Your task to perform on an android device: turn notification dots off Image 0: 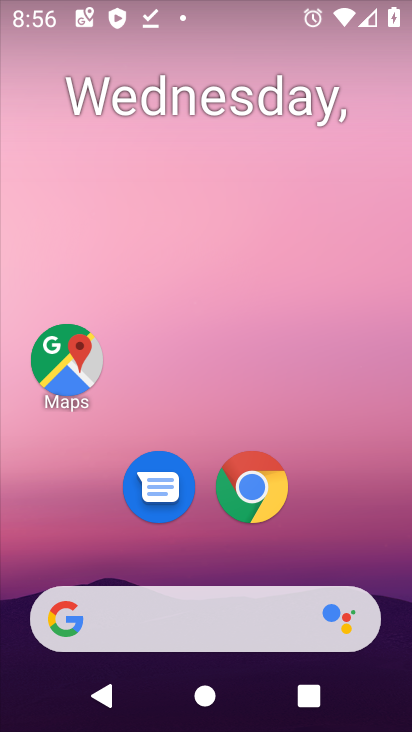
Step 0: drag from (237, 693) to (199, 481)
Your task to perform on an android device: turn notification dots off Image 1: 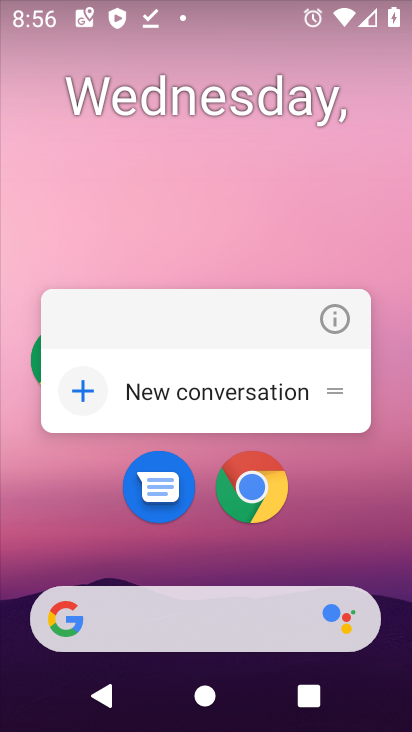
Step 1: drag from (248, 662) to (194, 107)
Your task to perform on an android device: turn notification dots off Image 2: 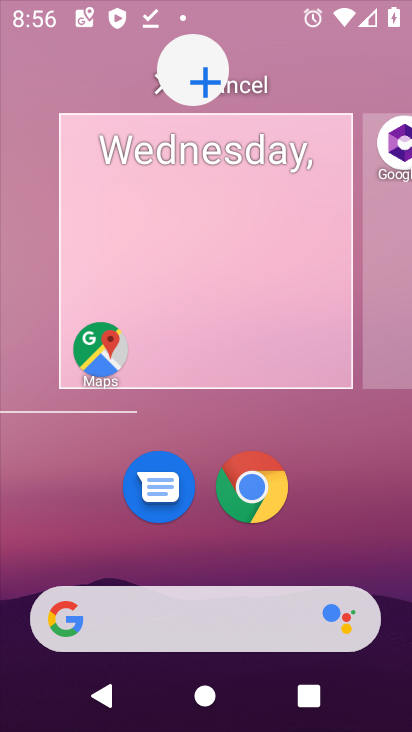
Step 2: drag from (238, 684) to (285, 8)
Your task to perform on an android device: turn notification dots off Image 3: 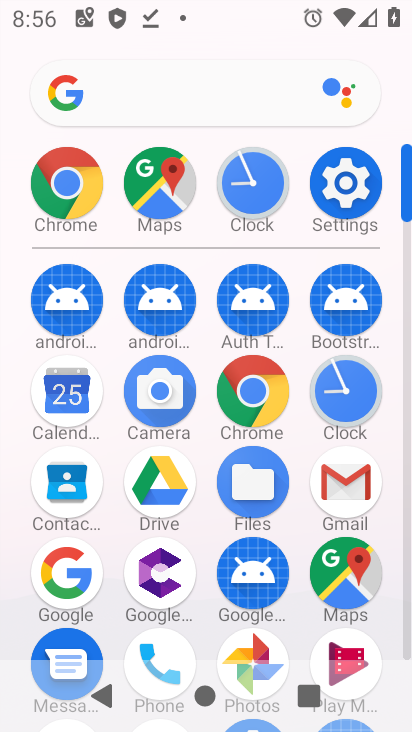
Step 3: drag from (241, 676) to (83, 118)
Your task to perform on an android device: turn notification dots off Image 4: 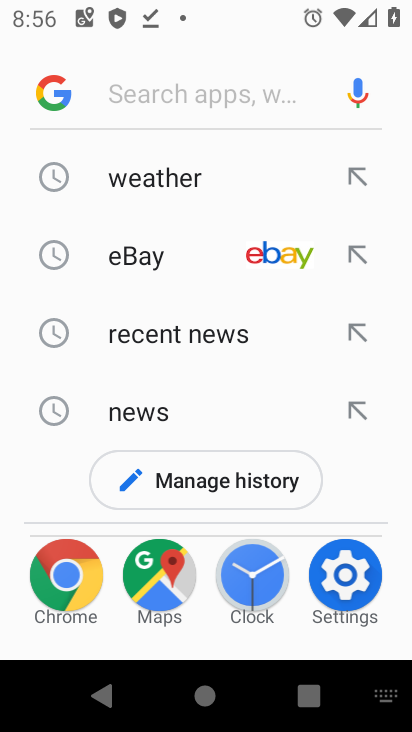
Step 4: click (327, 574)
Your task to perform on an android device: turn notification dots off Image 5: 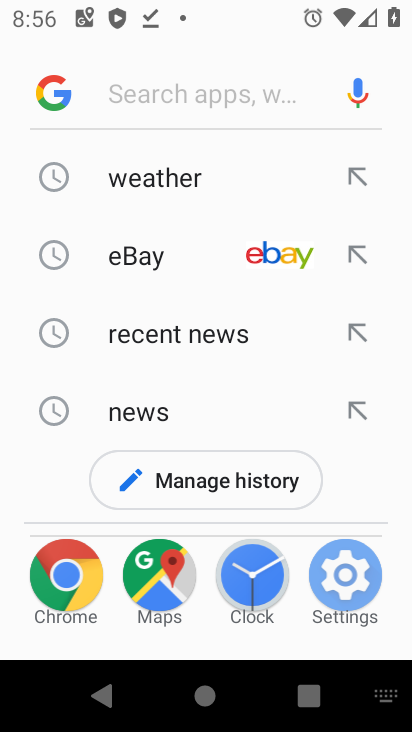
Step 5: click (328, 574)
Your task to perform on an android device: turn notification dots off Image 6: 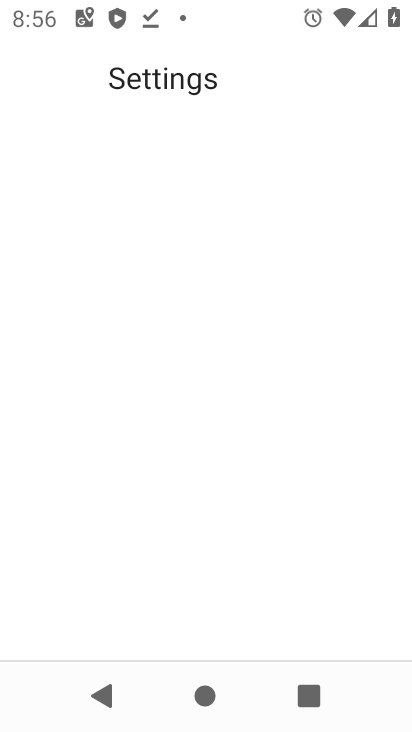
Step 6: click (328, 574)
Your task to perform on an android device: turn notification dots off Image 7: 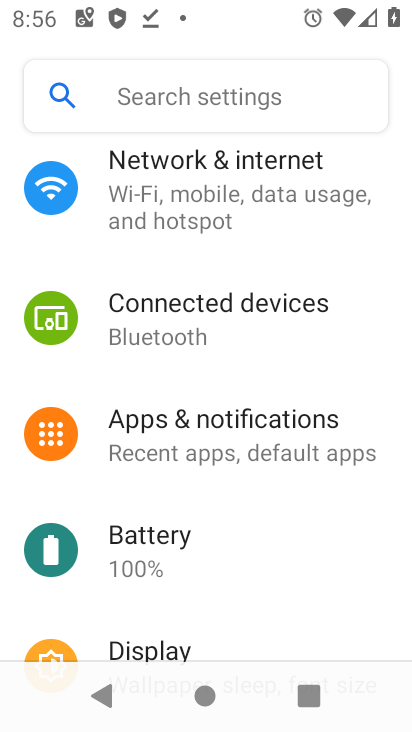
Step 7: drag from (202, 488) to (120, 154)
Your task to perform on an android device: turn notification dots off Image 8: 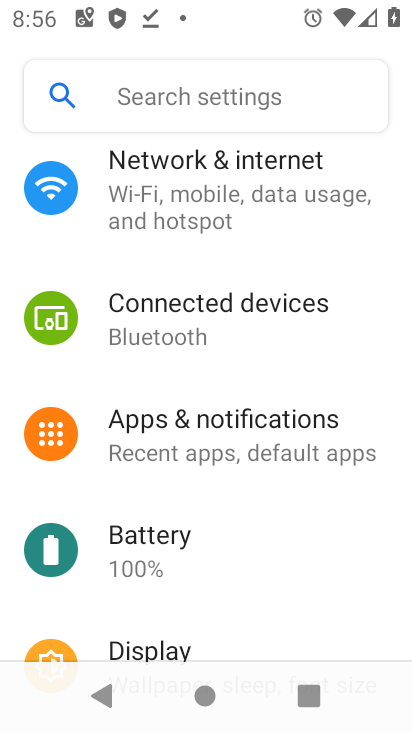
Step 8: drag from (186, 386) to (179, 206)
Your task to perform on an android device: turn notification dots off Image 9: 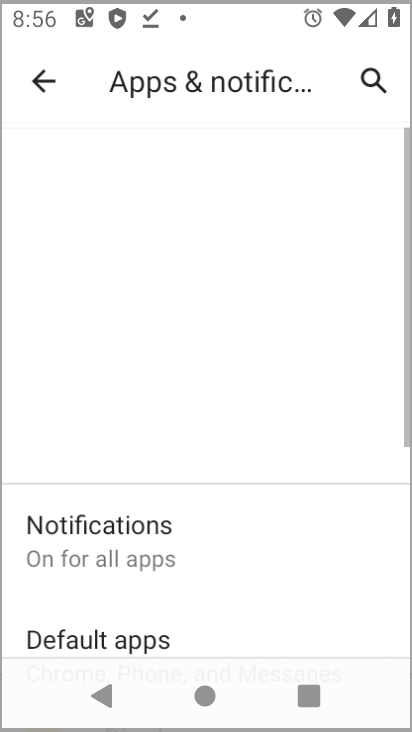
Step 9: drag from (244, 429) to (229, 179)
Your task to perform on an android device: turn notification dots off Image 10: 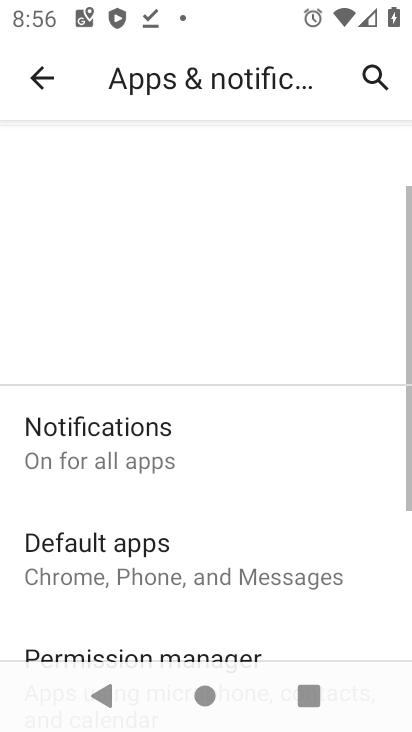
Step 10: drag from (234, 463) to (213, 218)
Your task to perform on an android device: turn notification dots off Image 11: 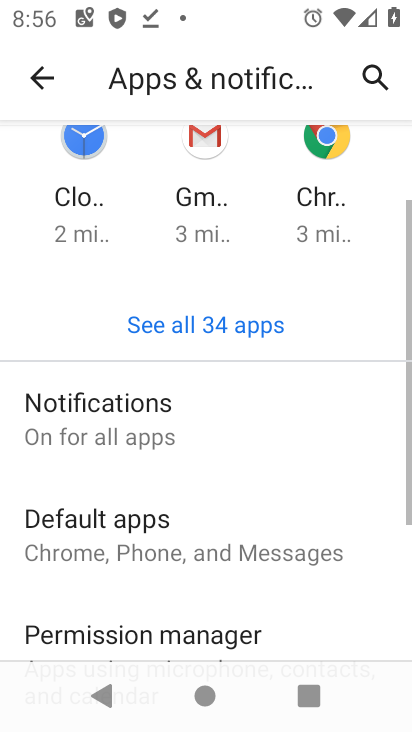
Step 11: drag from (220, 407) to (199, 176)
Your task to perform on an android device: turn notification dots off Image 12: 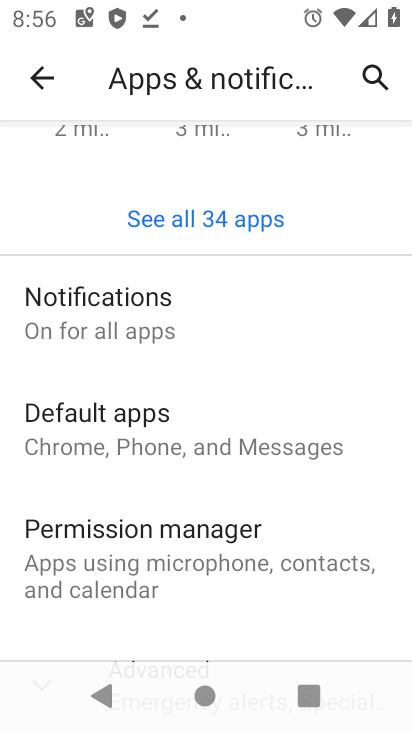
Step 12: drag from (168, 391) to (136, 213)
Your task to perform on an android device: turn notification dots off Image 13: 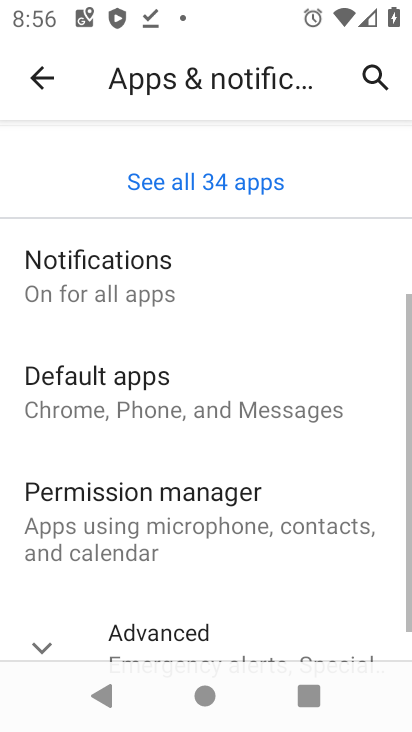
Step 13: click (91, 325)
Your task to perform on an android device: turn notification dots off Image 14: 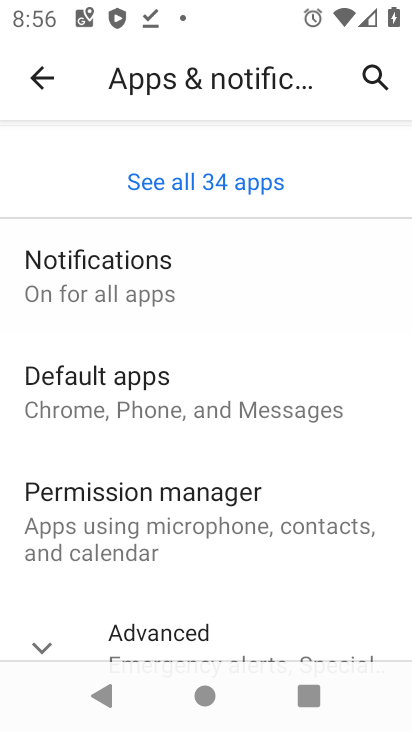
Step 14: click (79, 307)
Your task to perform on an android device: turn notification dots off Image 15: 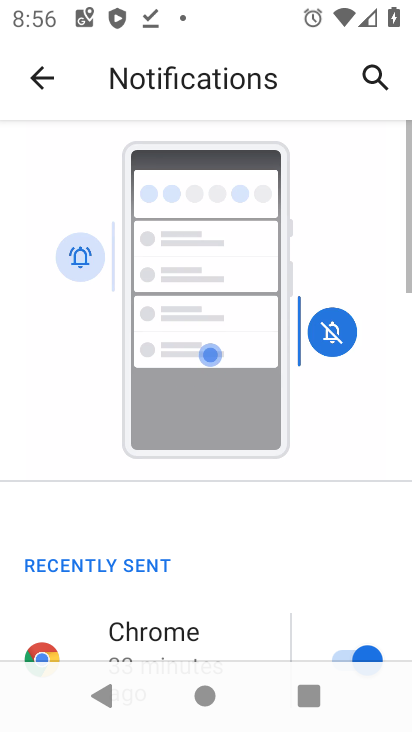
Step 15: drag from (209, 515) to (180, 268)
Your task to perform on an android device: turn notification dots off Image 16: 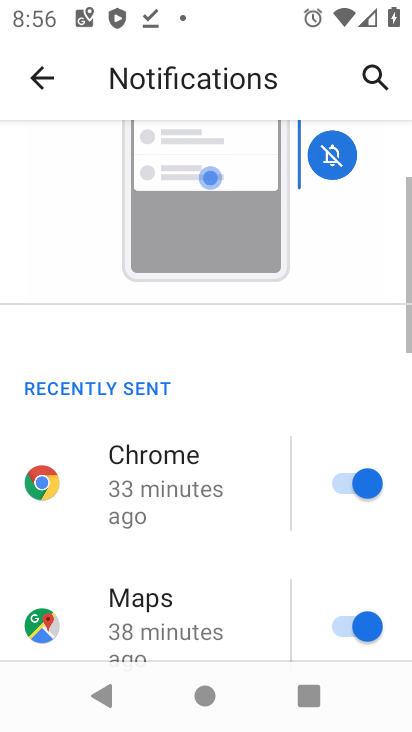
Step 16: drag from (226, 503) to (201, 279)
Your task to perform on an android device: turn notification dots off Image 17: 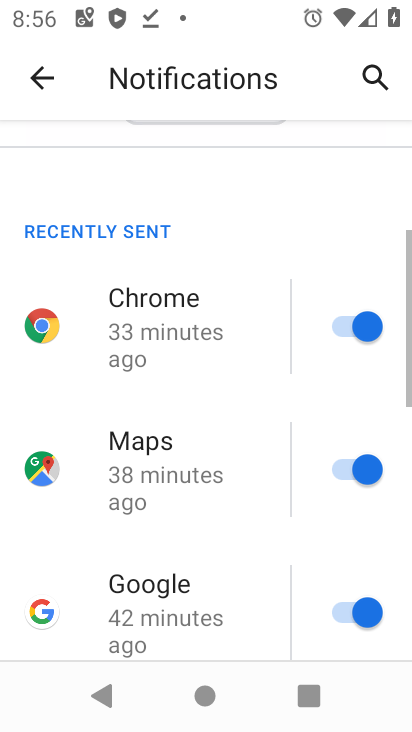
Step 17: drag from (233, 491) to (216, 297)
Your task to perform on an android device: turn notification dots off Image 18: 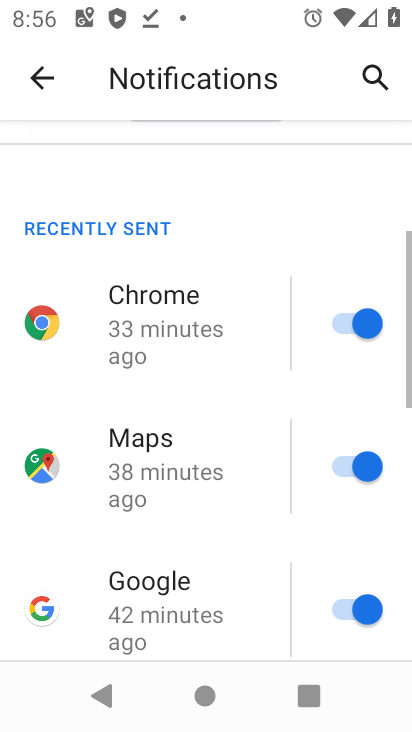
Step 18: drag from (258, 523) to (233, 250)
Your task to perform on an android device: turn notification dots off Image 19: 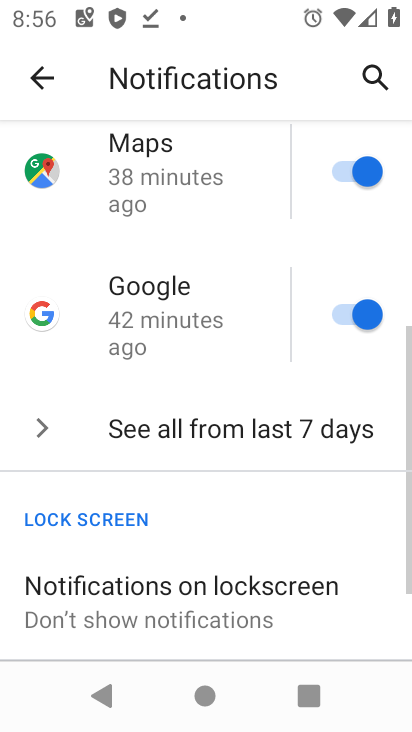
Step 19: drag from (237, 462) to (245, 167)
Your task to perform on an android device: turn notification dots off Image 20: 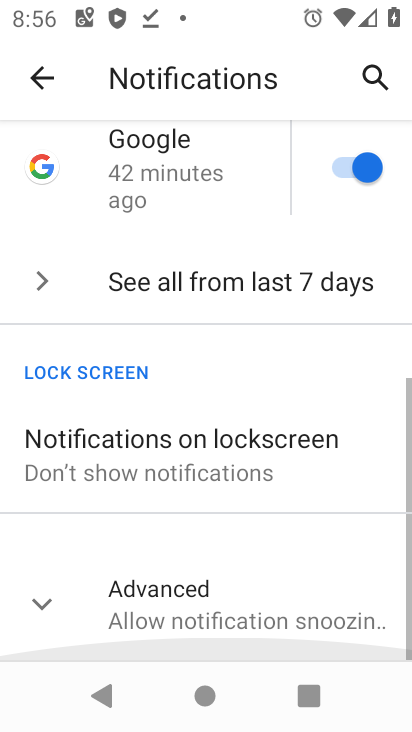
Step 20: drag from (179, 588) to (209, 300)
Your task to perform on an android device: turn notification dots off Image 21: 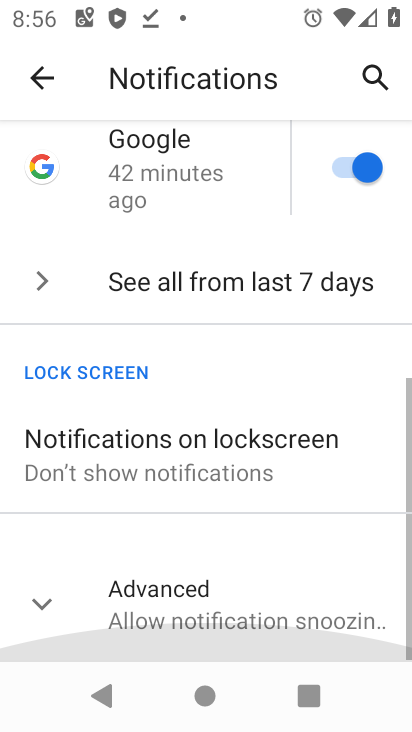
Step 21: drag from (244, 592) to (262, 335)
Your task to perform on an android device: turn notification dots off Image 22: 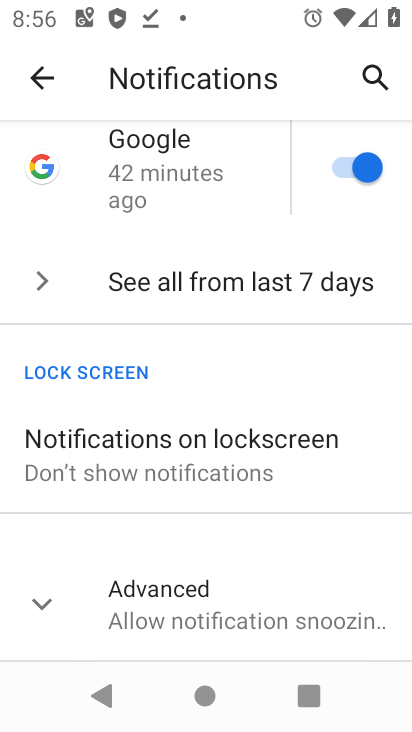
Step 22: drag from (285, 544) to (271, 265)
Your task to perform on an android device: turn notification dots off Image 23: 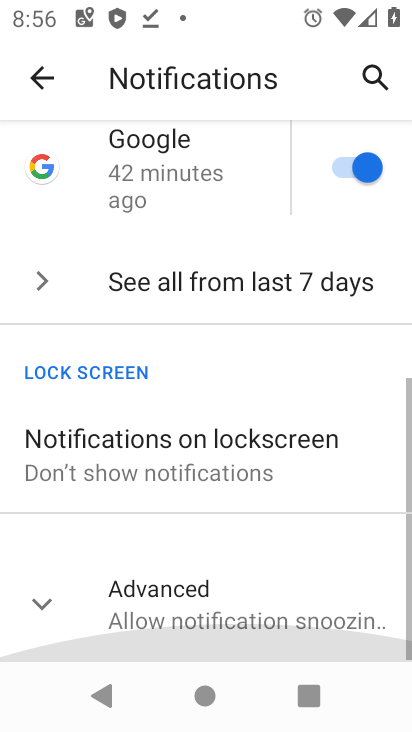
Step 23: click (147, 606)
Your task to perform on an android device: turn notification dots off Image 24: 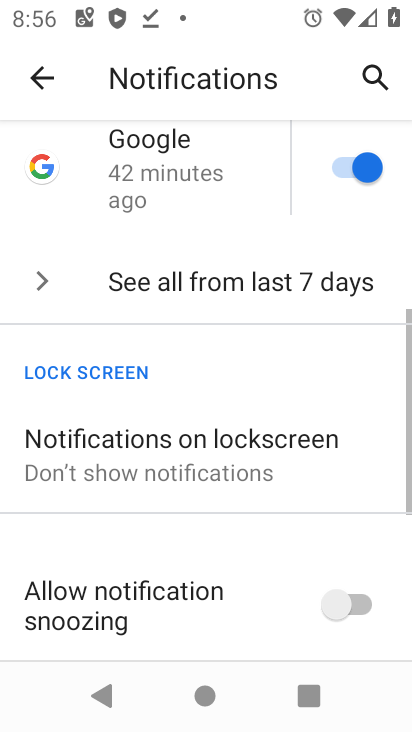
Step 24: click (142, 587)
Your task to perform on an android device: turn notification dots off Image 25: 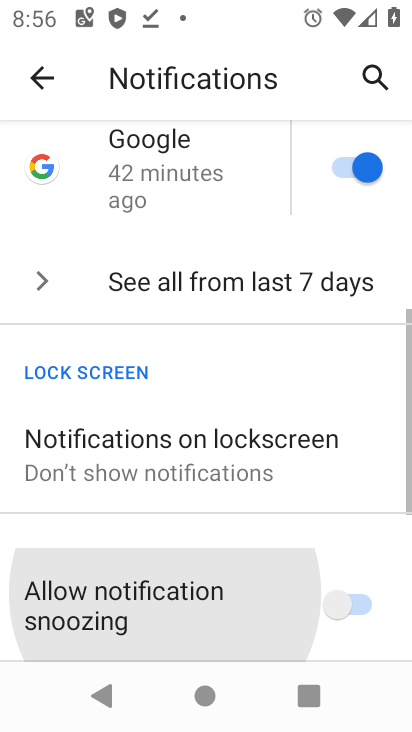
Step 25: drag from (242, 383) to (230, 267)
Your task to perform on an android device: turn notification dots off Image 26: 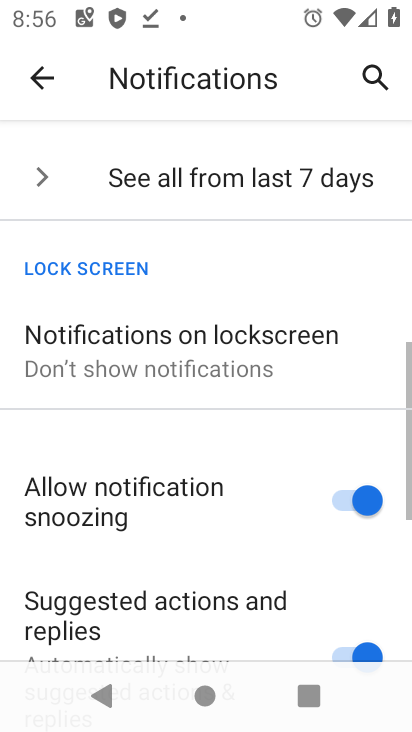
Step 26: drag from (261, 350) to (253, 294)
Your task to perform on an android device: turn notification dots off Image 27: 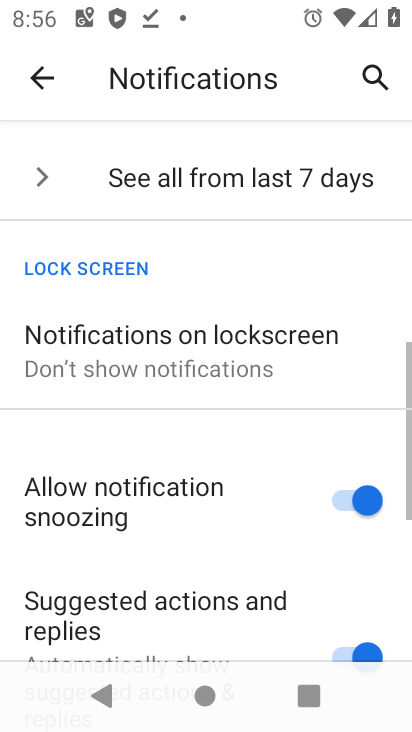
Step 27: drag from (208, 342) to (202, 286)
Your task to perform on an android device: turn notification dots off Image 28: 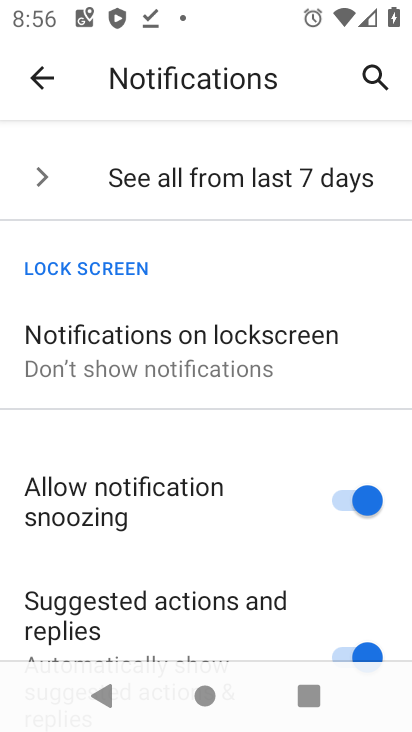
Step 28: drag from (259, 452) to (230, 271)
Your task to perform on an android device: turn notification dots off Image 29: 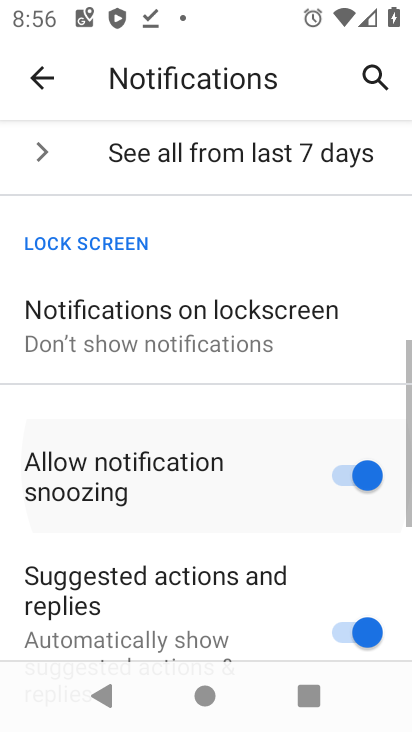
Step 29: drag from (235, 546) to (207, 261)
Your task to perform on an android device: turn notification dots off Image 30: 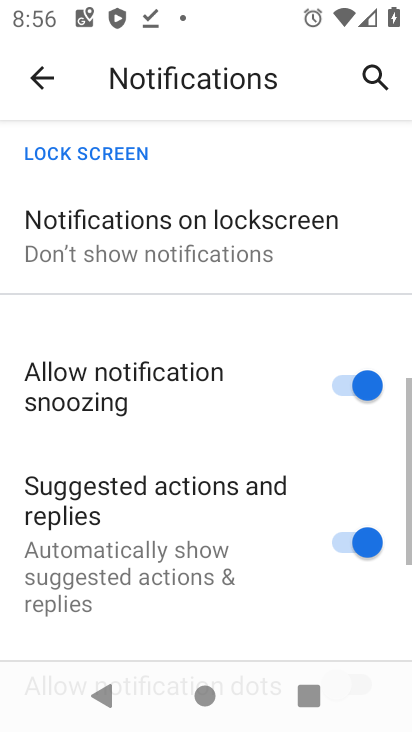
Step 30: drag from (230, 561) to (211, 265)
Your task to perform on an android device: turn notification dots off Image 31: 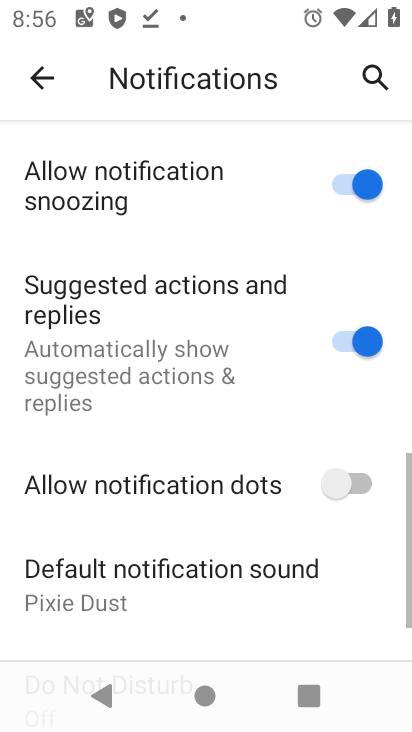
Step 31: drag from (212, 536) to (205, 285)
Your task to perform on an android device: turn notification dots off Image 32: 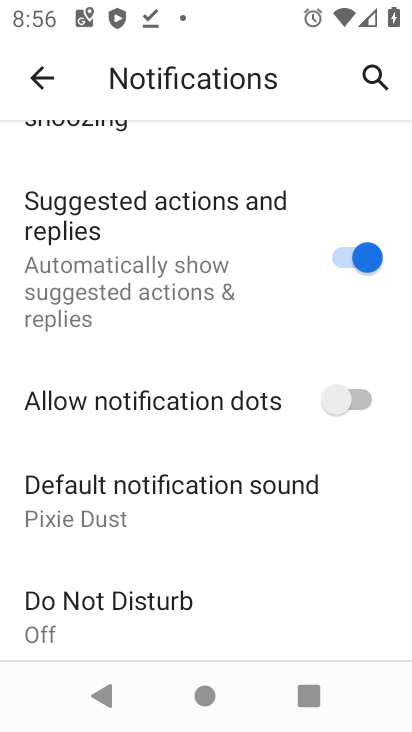
Step 32: click (336, 392)
Your task to perform on an android device: turn notification dots off Image 33: 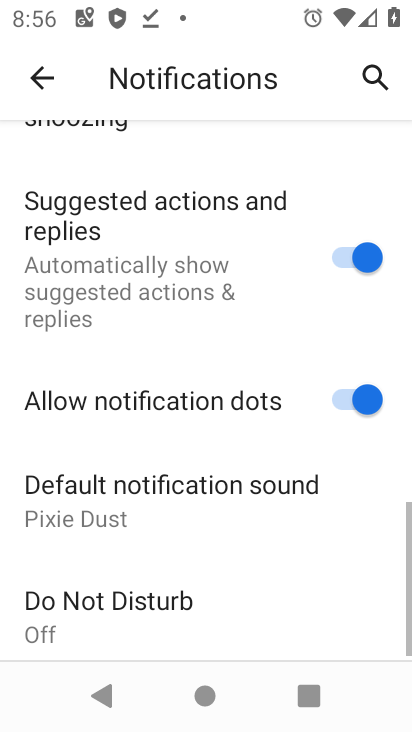
Step 33: click (354, 406)
Your task to perform on an android device: turn notification dots off Image 34: 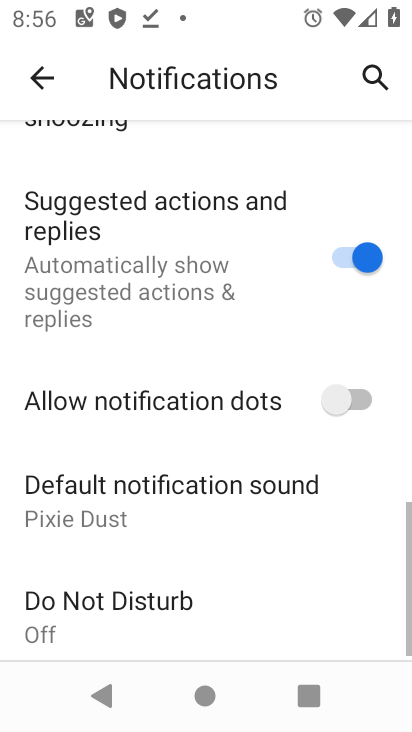
Step 34: task complete